Your task to perform on an android device: Open ESPN.com Image 0: 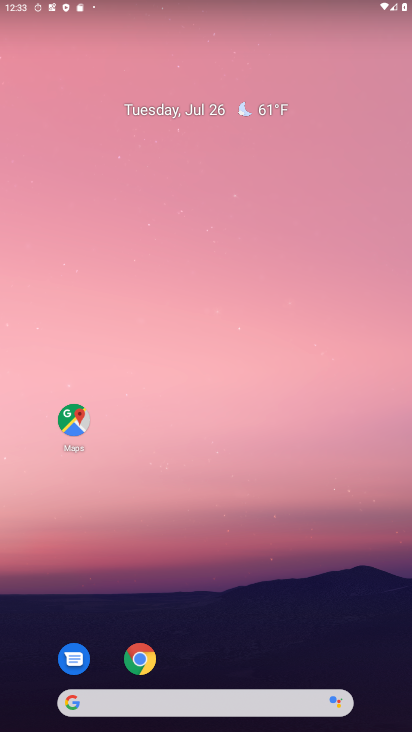
Step 0: click (122, 704)
Your task to perform on an android device: Open ESPN.com Image 1: 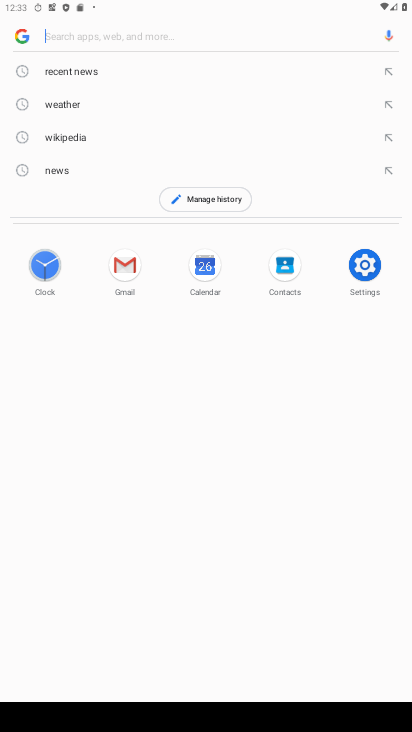
Step 1: type "ESPN.com"
Your task to perform on an android device: Open ESPN.com Image 2: 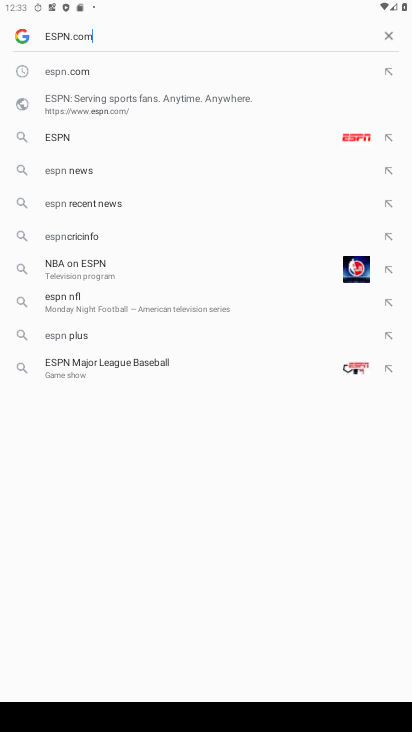
Step 2: type ""
Your task to perform on an android device: Open ESPN.com Image 3: 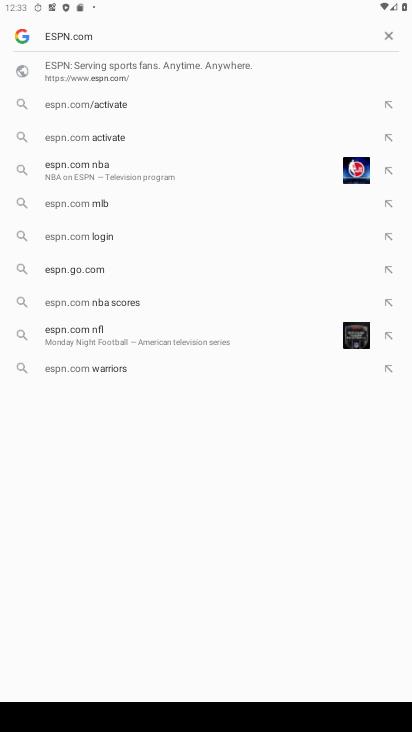
Step 3: click (70, 71)
Your task to perform on an android device: Open ESPN.com Image 4: 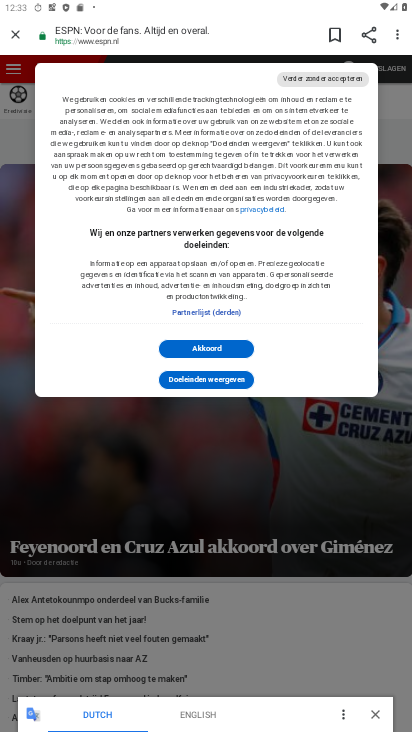
Step 4: task complete